Your task to perform on an android device: turn on sleep mode Image 0: 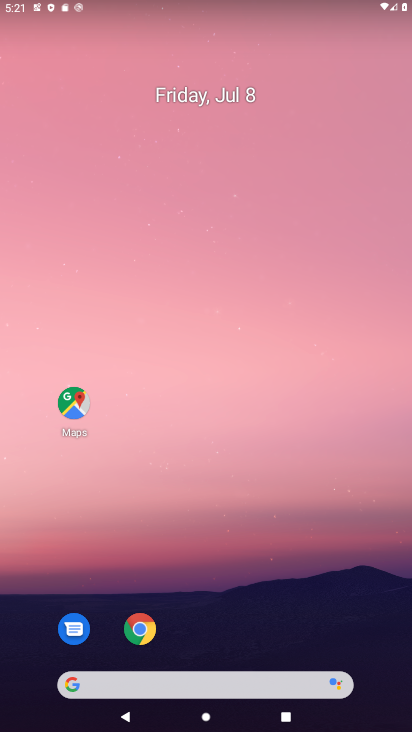
Step 0: press home button
Your task to perform on an android device: turn on sleep mode Image 1: 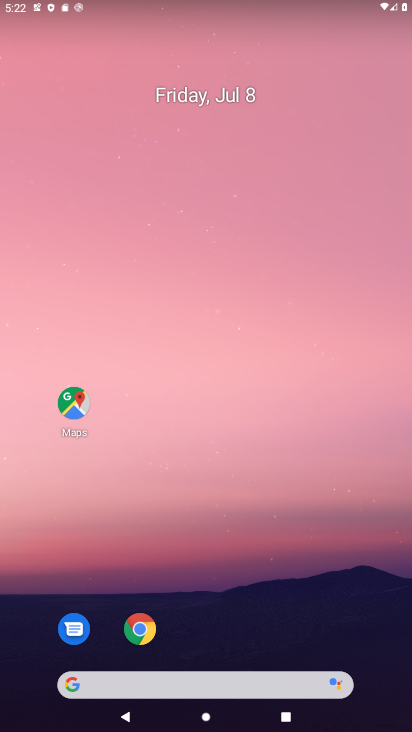
Step 1: drag from (272, 602) to (246, 138)
Your task to perform on an android device: turn on sleep mode Image 2: 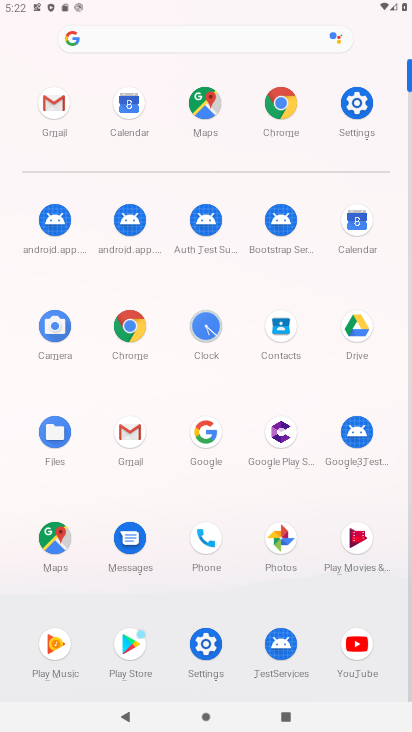
Step 2: click (360, 109)
Your task to perform on an android device: turn on sleep mode Image 3: 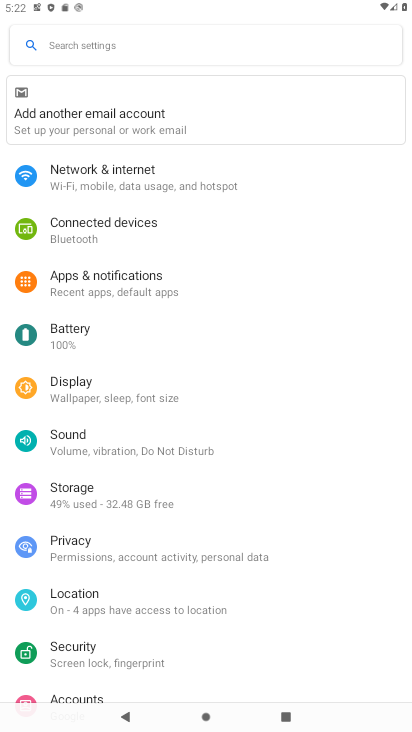
Step 3: click (73, 394)
Your task to perform on an android device: turn on sleep mode Image 4: 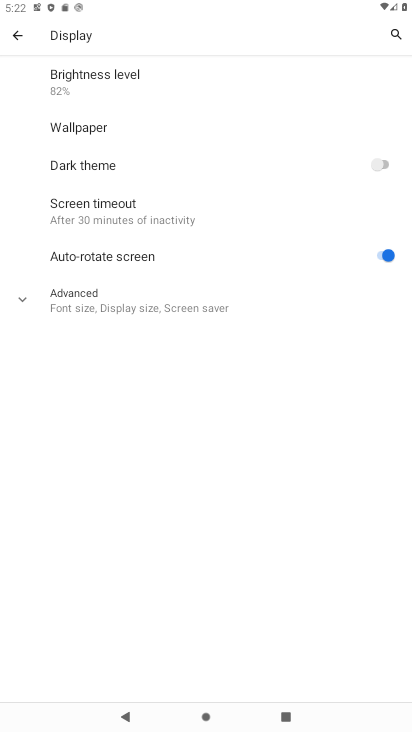
Step 4: task complete